Your task to perform on an android device: Show me productivity apps on the Play Store Image 0: 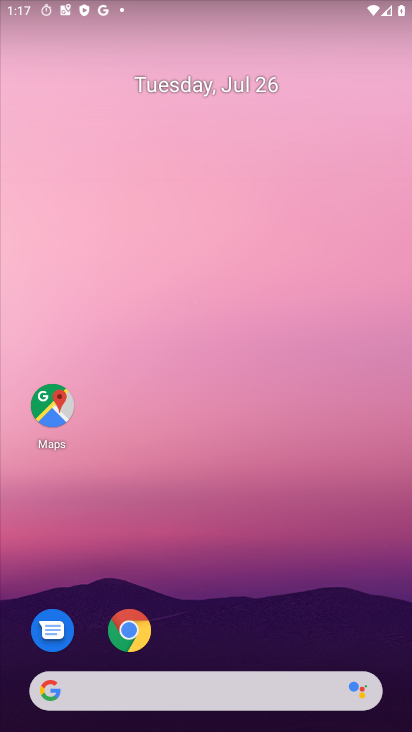
Step 0: drag from (242, 611) to (262, 141)
Your task to perform on an android device: Show me productivity apps on the Play Store Image 1: 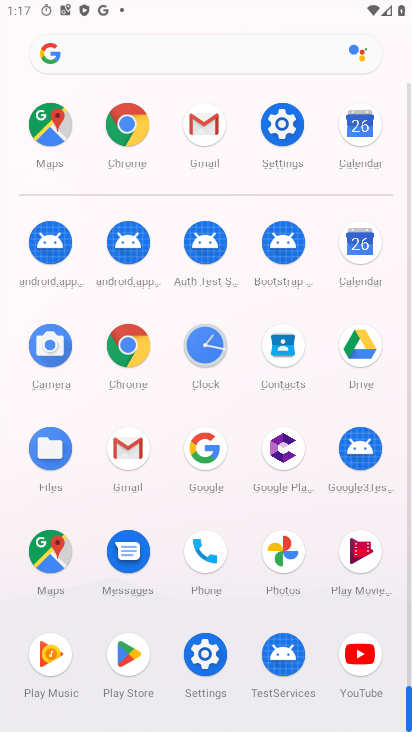
Step 1: click (141, 646)
Your task to perform on an android device: Show me productivity apps on the Play Store Image 2: 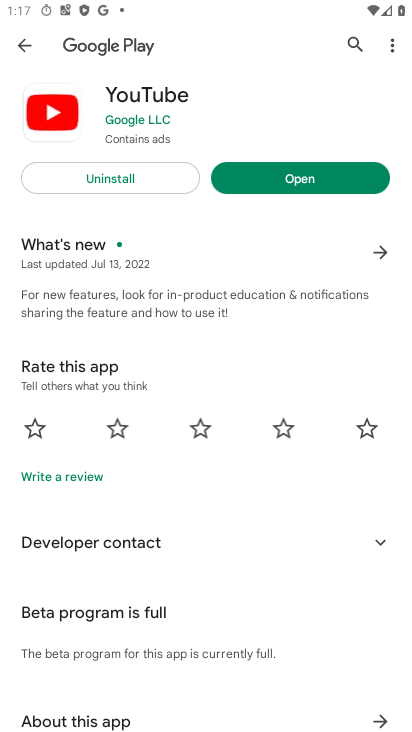
Step 2: click (25, 47)
Your task to perform on an android device: Show me productivity apps on the Play Store Image 3: 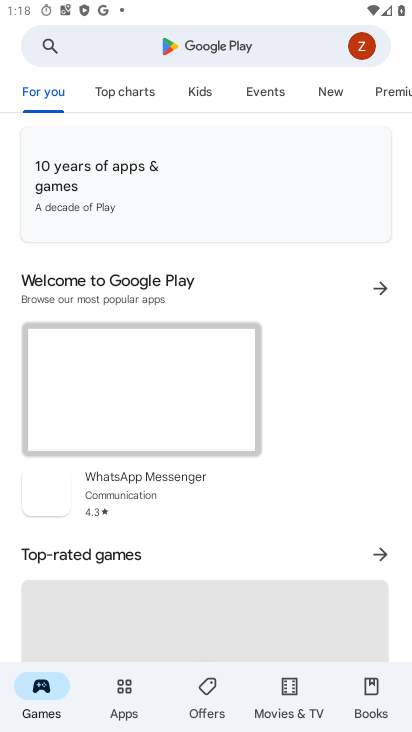
Step 3: click (212, 51)
Your task to perform on an android device: Show me productivity apps on the Play Store Image 4: 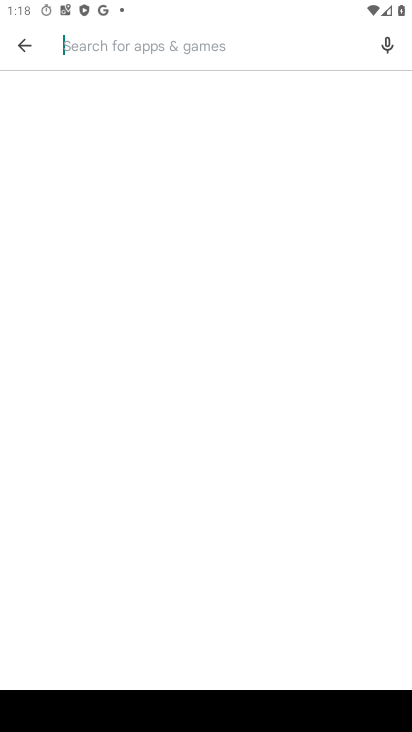
Step 4: type " productivity apps"
Your task to perform on an android device: Show me productivity apps on the Play Store Image 5: 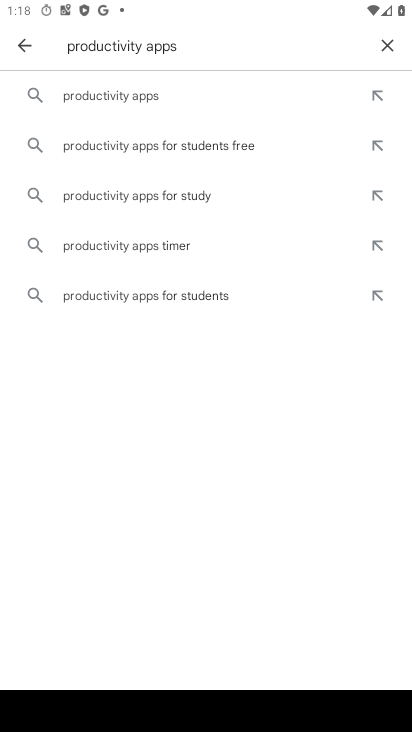
Step 5: click (122, 106)
Your task to perform on an android device: Show me productivity apps on the Play Store Image 6: 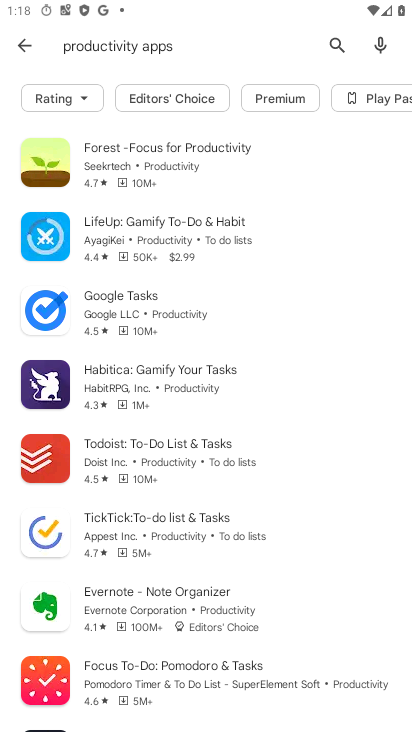
Step 6: task complete